Your task to perform on an android device: empty trash in google photos Image 0: 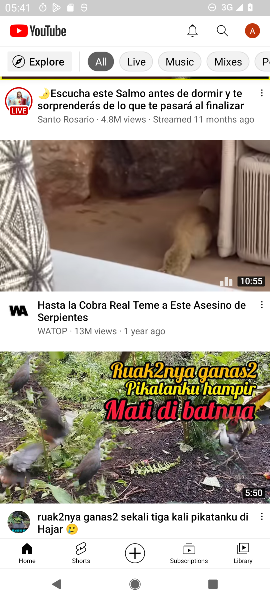
Step 0: press home button
Your task to perform on an android device: empty trash in google photos Image 1: 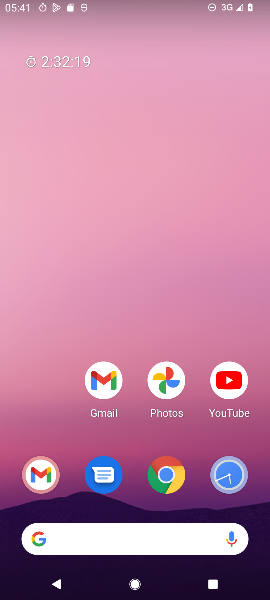
Step 1: drag from (62, 438) to (54, 152)
Your task to perform on an android device: empty trash in google photos Image 2: 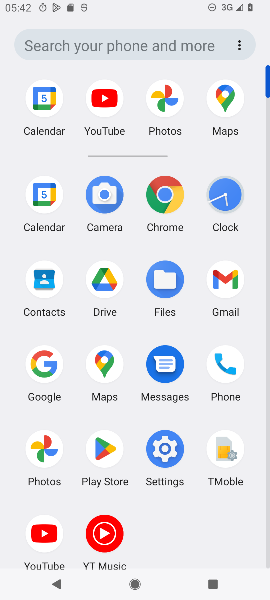
Step 2: click (44, 458)
Your task to perform on an android device: empty trash in google photos Image 3: 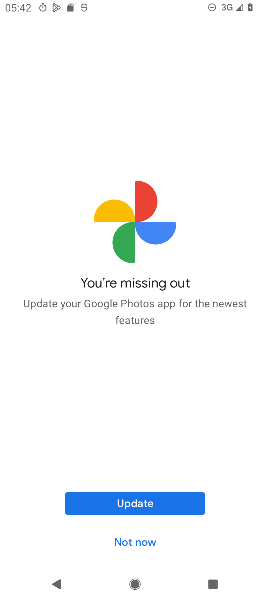
Step 3: click (130, 542)
Your task to perform on an android device: empty trash in google photos Image 4: 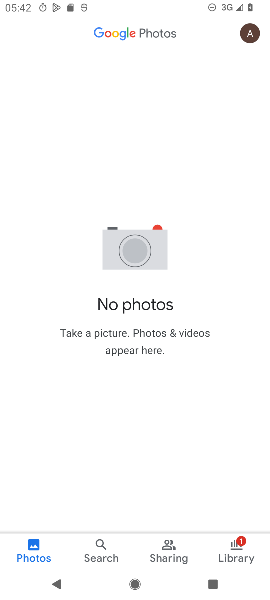
Step 4: click (231, 543)
Your task to perform on an android device: empty trash in google photos Image 5: 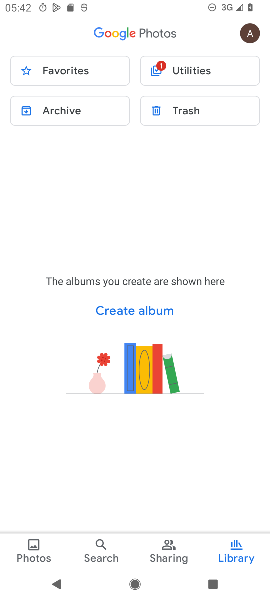
Step 5: click (206, 104)
Your task to perform on an android device: empty trash in google photos Image 6: 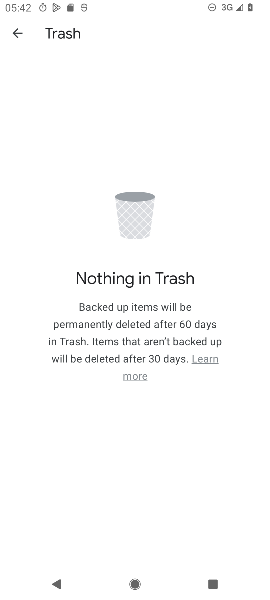
Step 6: task complete